Your task to perform on an android device: open chrome and create a bookmark for the current page Image 0: 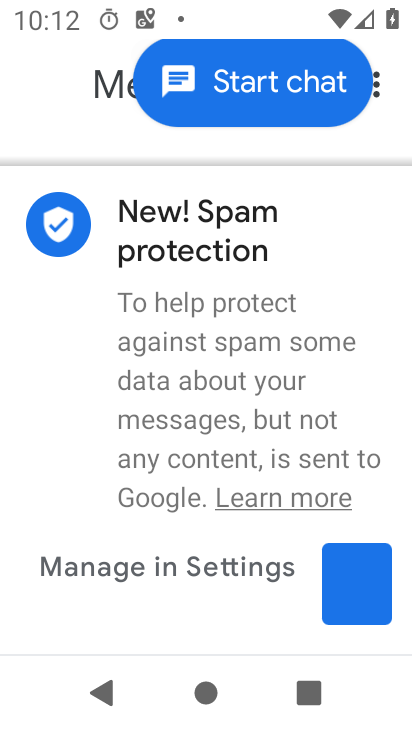
Step 0: press home button
Your task to perform on an android device: open chrome and create a bookmark for the current page Image 1: 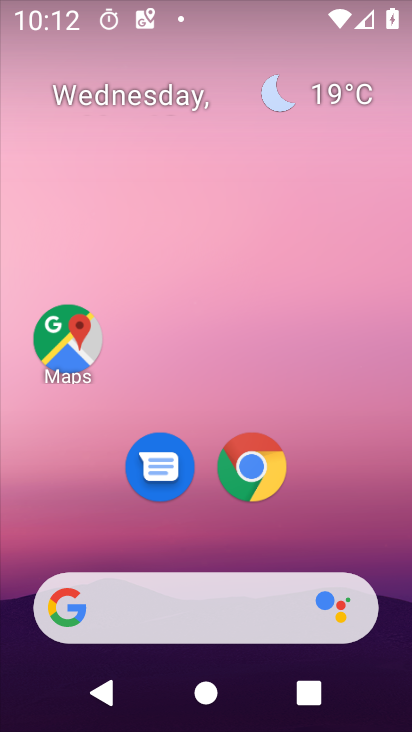
Step 1: click (253, 460)
Your task to perform on an android device: open chrome and create a bookmark for the current page Image 2: 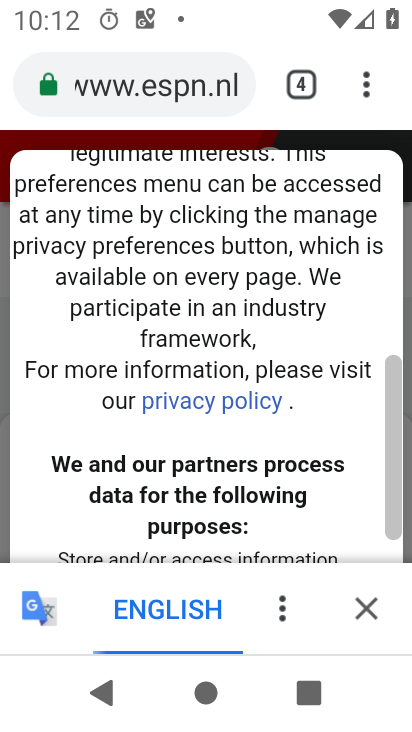
Step 2: click (371, 82)
Your task to perform on an android device: open chrome and create a bookmark for the current page Image 3: 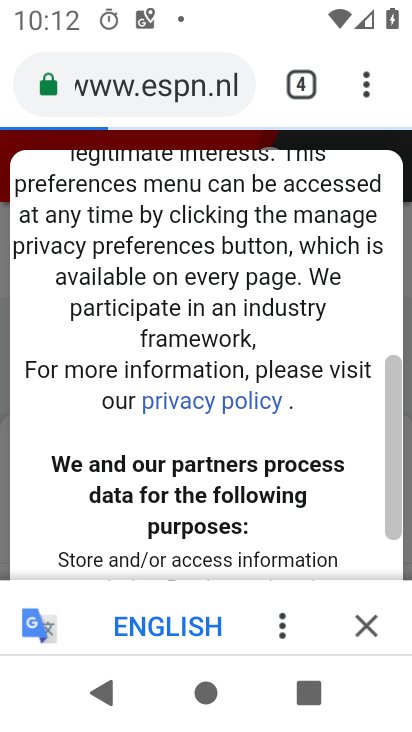
Step 3: click (362, 91)
Your task to perform on an android device: open chrome and create a bookmark for the current page Image 4: 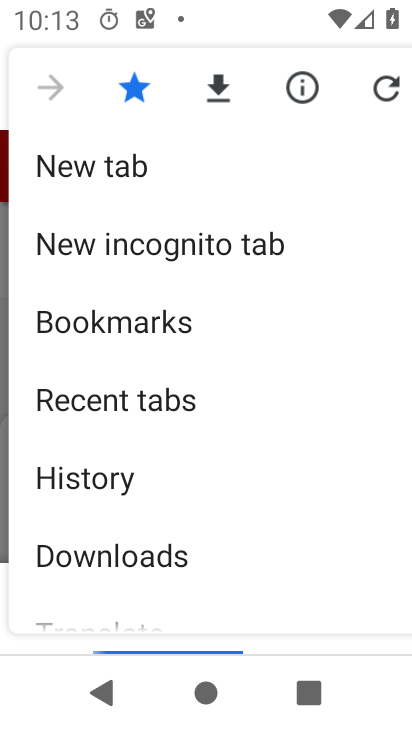
Step 4: task complete